Your task to perform on an android device: install app "Speedtest by Ookla" Image 0: 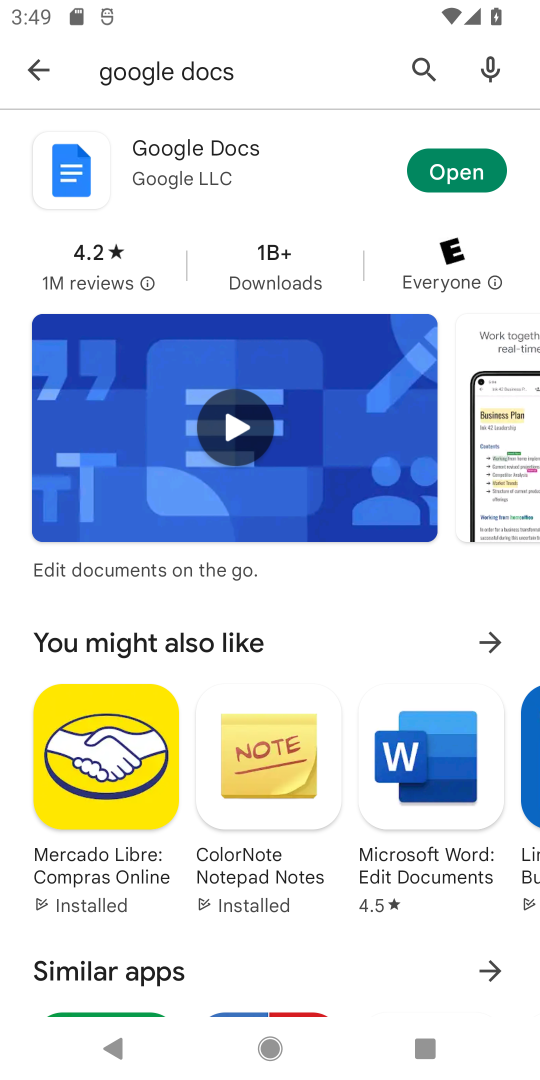
Step 0: click (424, 71)
Your task to perform on an android device: install app "Speedtest by Ookla" Image 1: 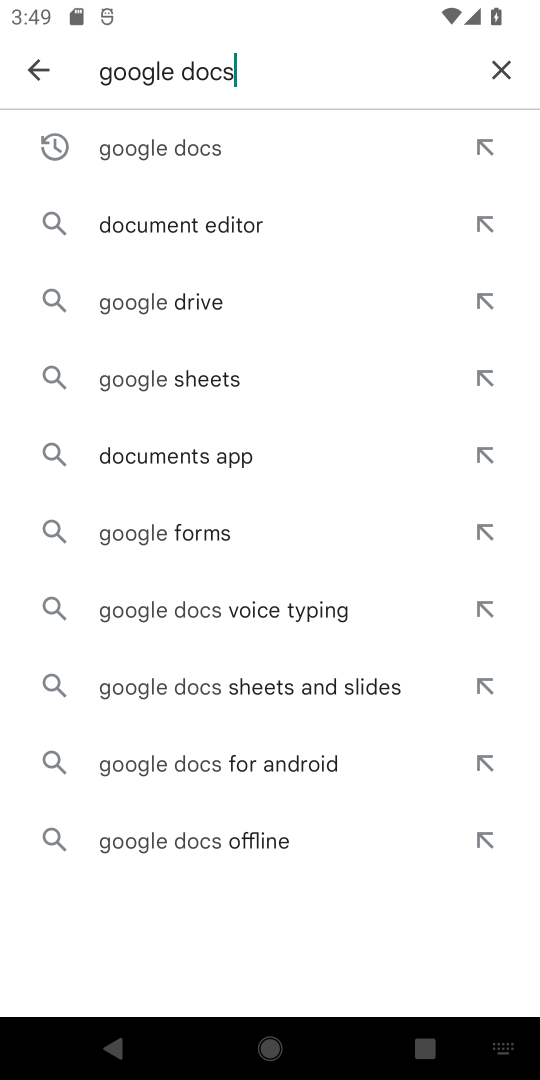
Step 1: click (481, 62)
Your task to perform on an android device: install app "Speedtest by Ookla" Image 2: 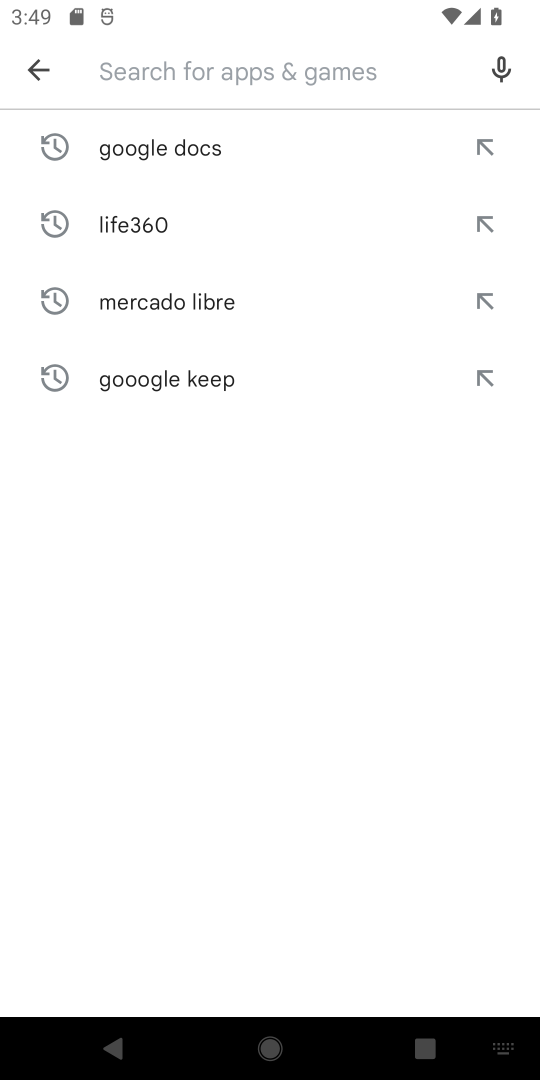
Step 2: type "speedtest"
Your task to perform on an android device: install app "Speedtest by Ookla" Image 3: 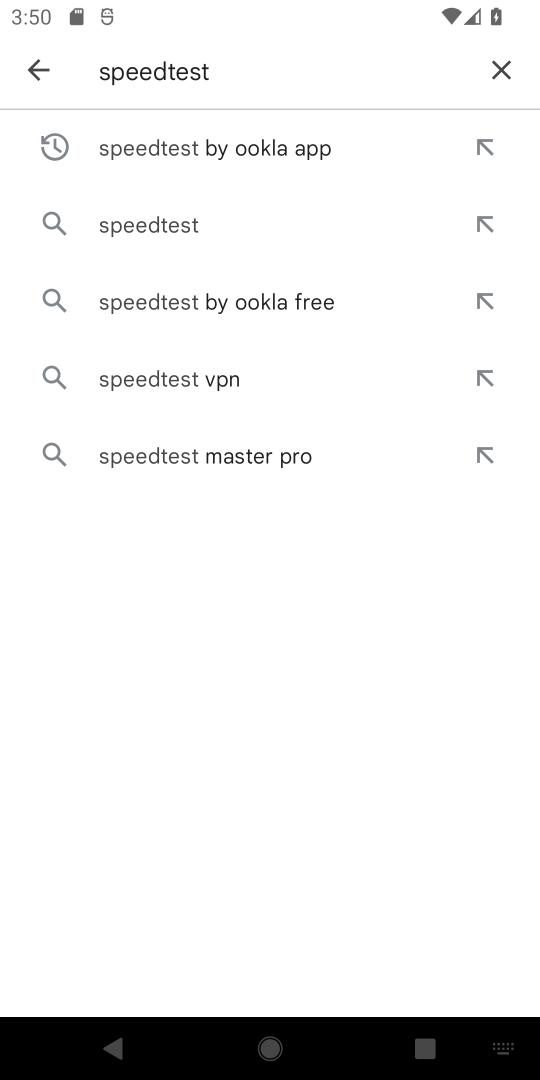
Step 3: click (357, 169)
Your task to perform on an android device: install app "Speedtest by Ookla" Image 4: 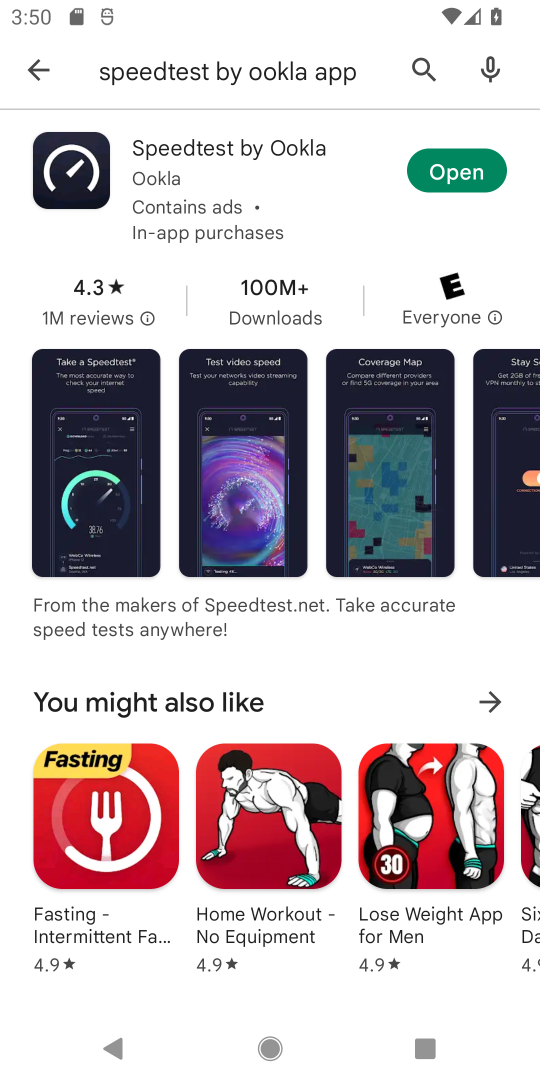
Step 4: click (432, 171)
Your task to perform on an android device: install app "Speedtest by Ookla" Image 5: 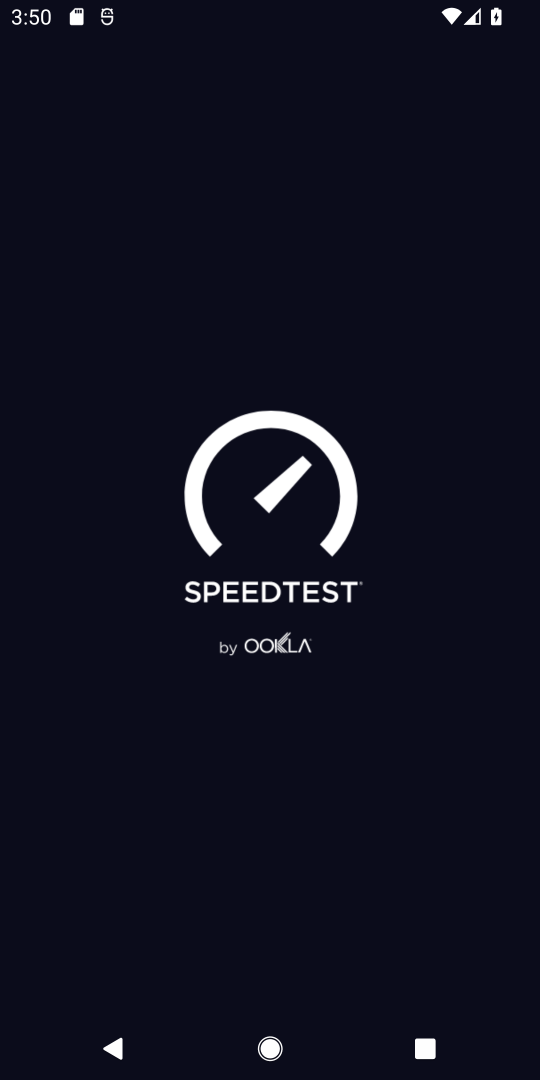
Step 5: task complete